Your task to perform on an android device: toggle show notifications on the lock screen Image 0: 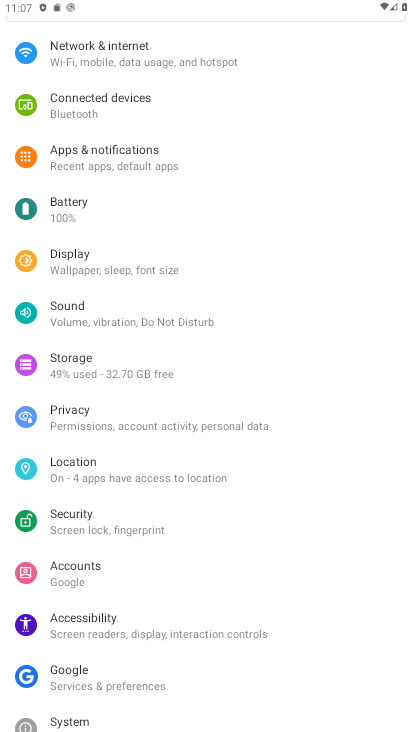
Step 0: press home button
Your task to perform on an android device: toggle show notifications on the lock screen Image 1: 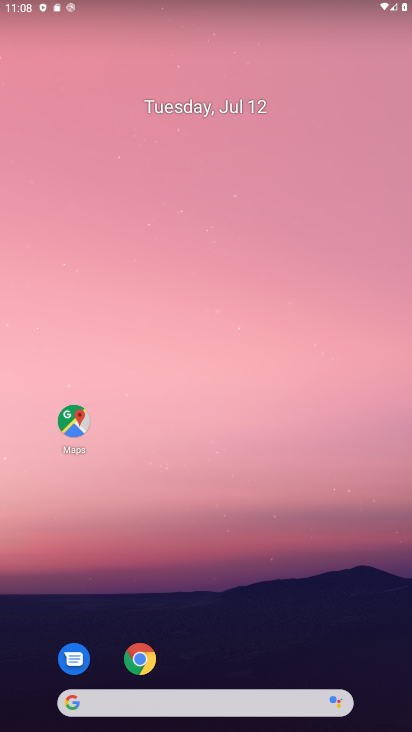
Step 1: drag from (203, 649) to (176, 110)
Your task to perform on an android device: toggle show notifications on the lock screen Image 2: 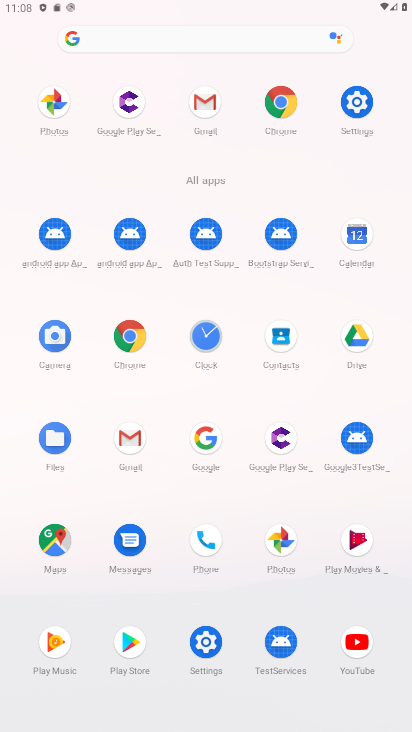
Step 2: click (371, 102)
Your task to perform on an android device: toggle show notifications on the lock screen Image 3: 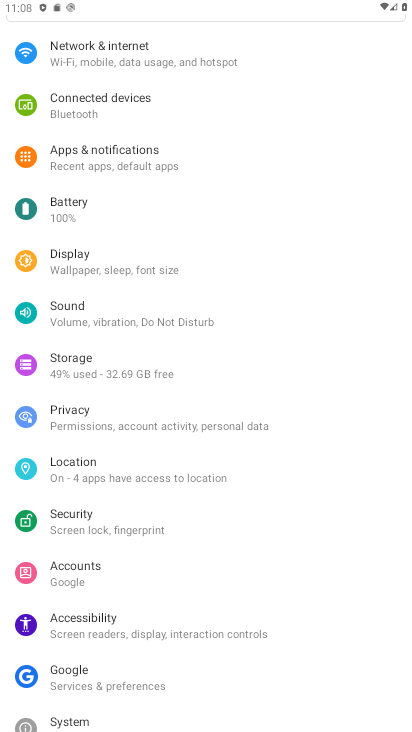
Step 3: click (175, 144)
Your task to perform on an android device: toggle show notifications on the lock screen Image 4: 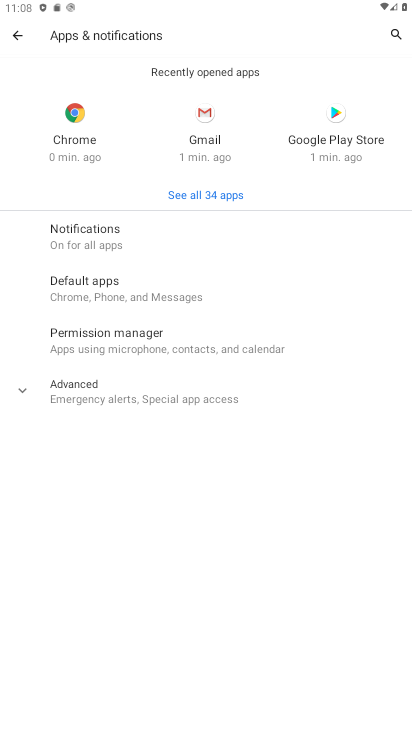
Step 4: click (156, 244)
Your task to perform on an android device: toggle show notifications on the lock screen Image 5: 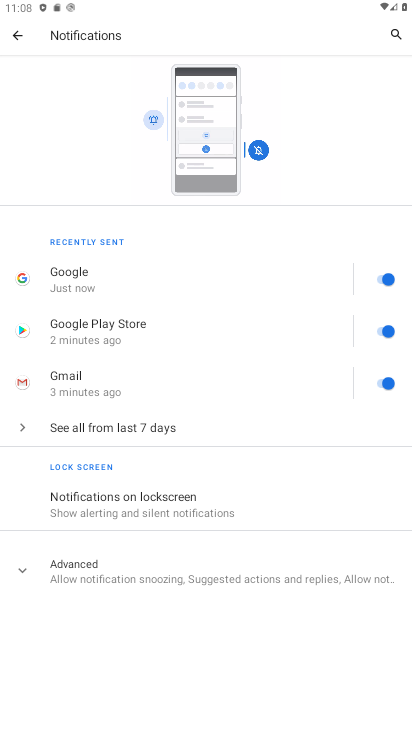
Step 5: click (209, 507)
Your task to perform on an android device: toggle show notifications on the lock screen Image 6: 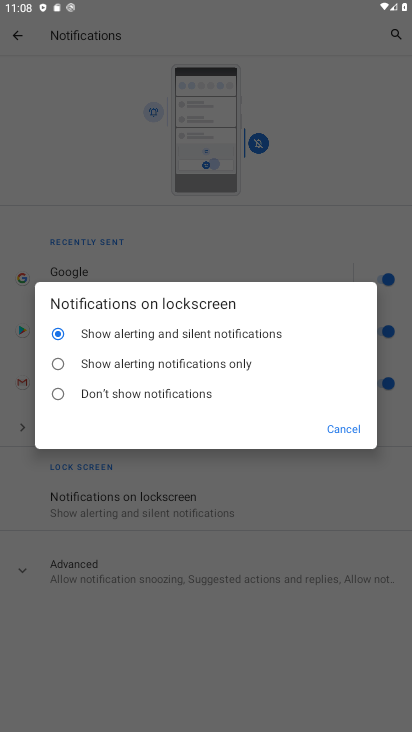
Step 6: click (204, 363)
Your task to perform on an android device: toggle show notifications on the lock screen Image 7: 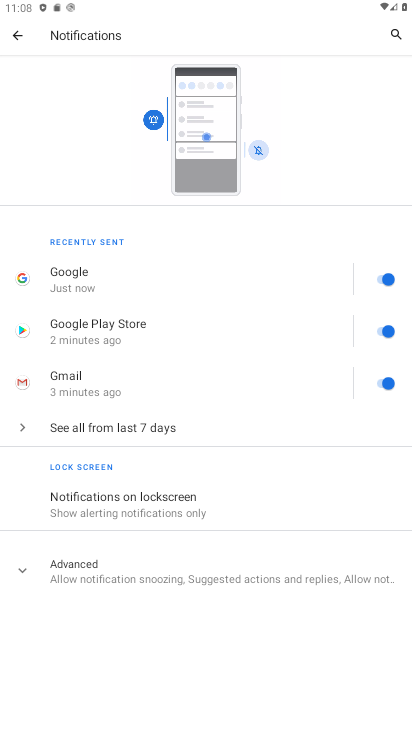
Step 7: task complete